Your task to perform on an android device: turn off airplane mode Image 0: 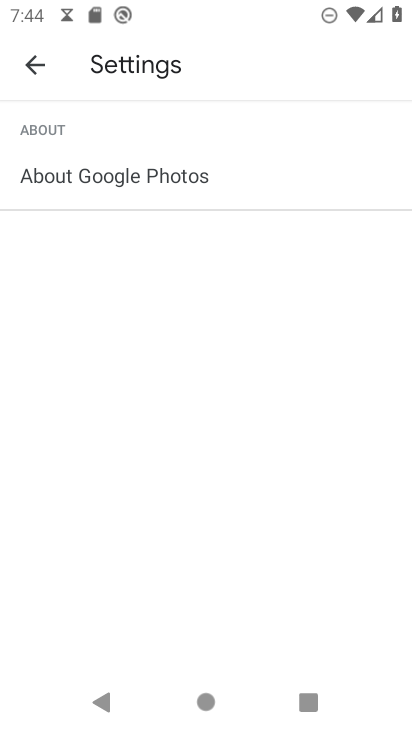
Step 0: press home button
Your task to perform on an android device: turn off airplane mode Image 1: 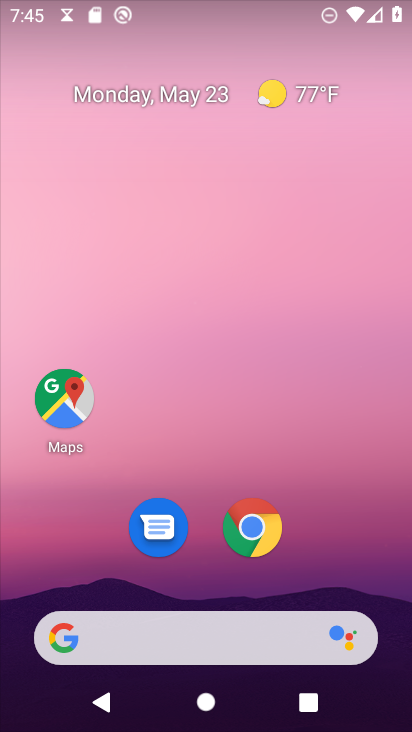
Step 1: drag from (284, 668) to (282, 202)
Your task to perform on an android device: turn off airplane mode Image 2: 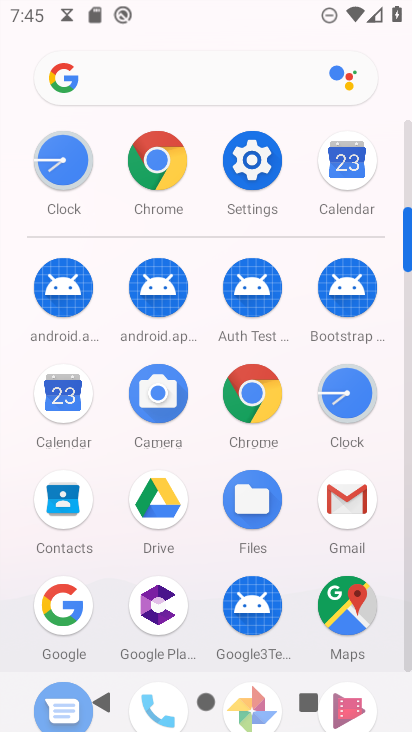
Step 2: click (249, 190)
Your task to perform on an android device: turn off airplane mode Image 3: 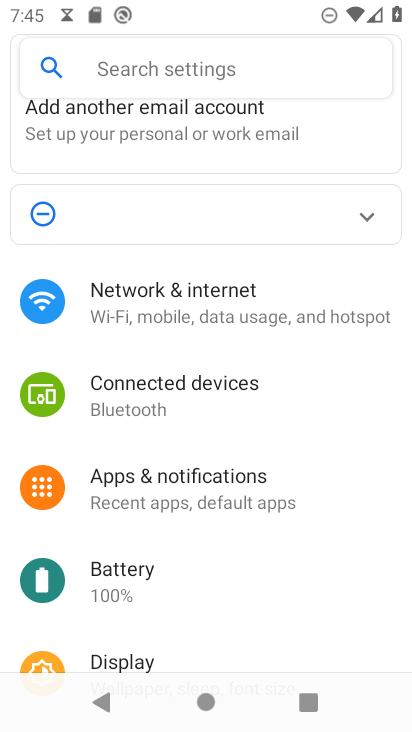
Step 3: click (204, 292)
Your task to perform on an android device: turn off airplane mode Image 4: 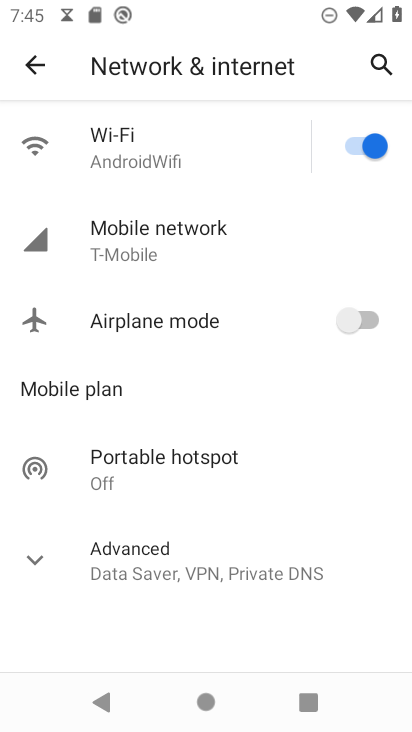
Step 4: click (349, 314)
Your task to perform on an android device: turn off airplane mode Image 5: 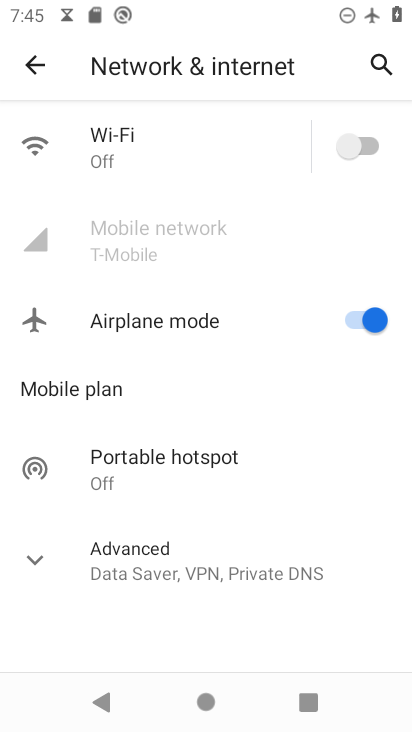
Step 5: click (349, 314)
Your task to perform on an android device: turn off airplane mode Image 6: 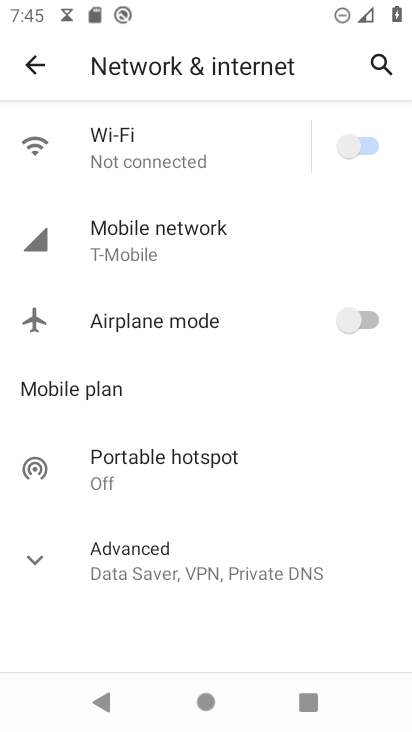
Step 6: task complete